Your task to perform on an android device: open device folders in google photos Image 0: 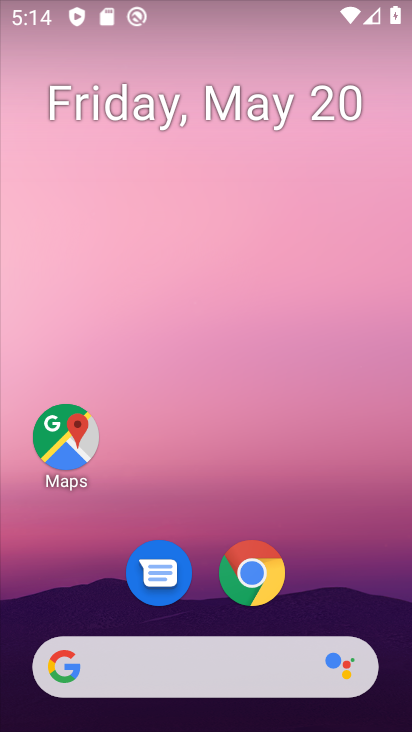
Step 0: drag from (341, 532) to (209, 27)
Your task to perform on an android device: open device folders in google photos Image 1: 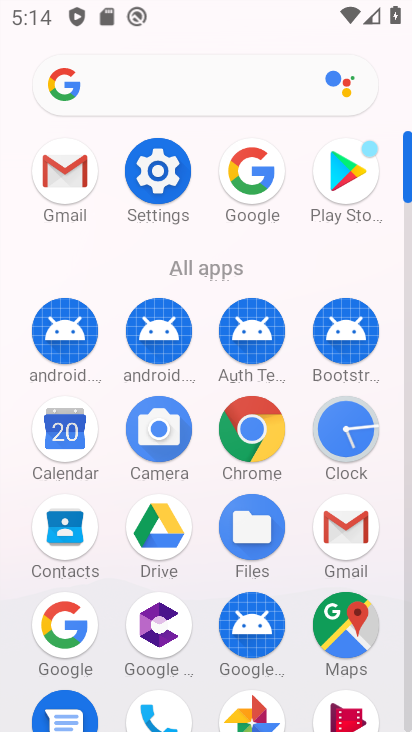
Step 1: drag from (294, 549) to (222, 101)
Your task to perform on an android device: open device folders in google photos Image 2: 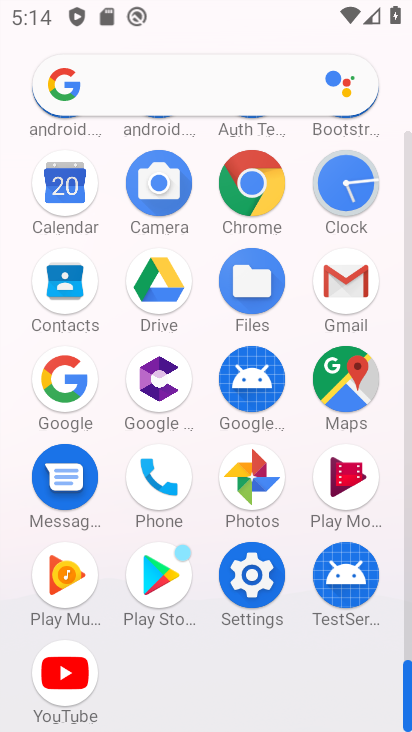
Step 2: click (256, 488)
Your task to perform on an android device: open device folders in google photos Image 3: 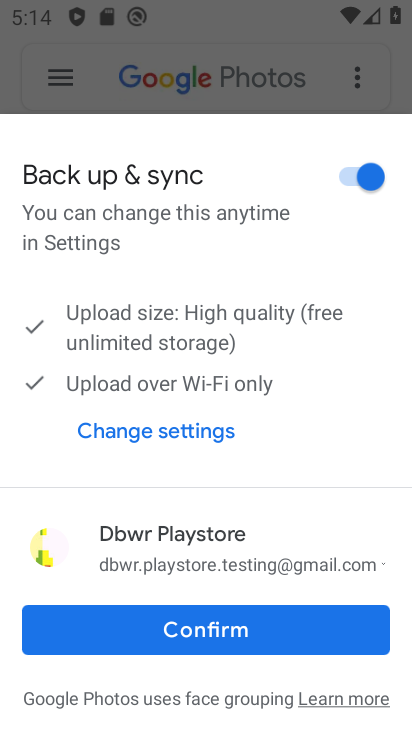
Step 3: click (55, 72)
Your task to perform on an android device: open device folders in google photos Image 4: 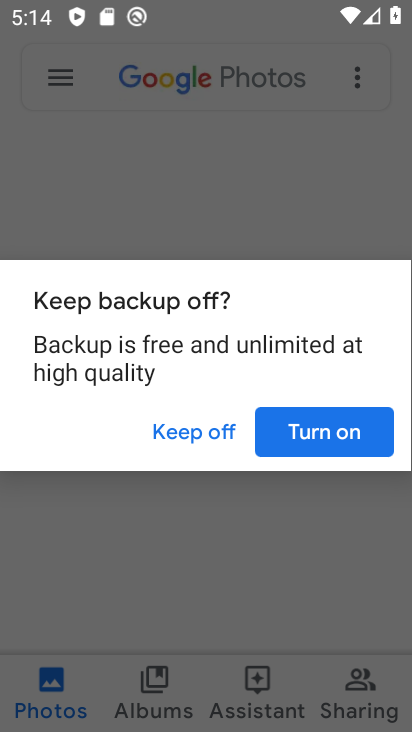
Step 4: click (55, 79)
Your task to perform on an android device: open device folders in google photos Image 5: 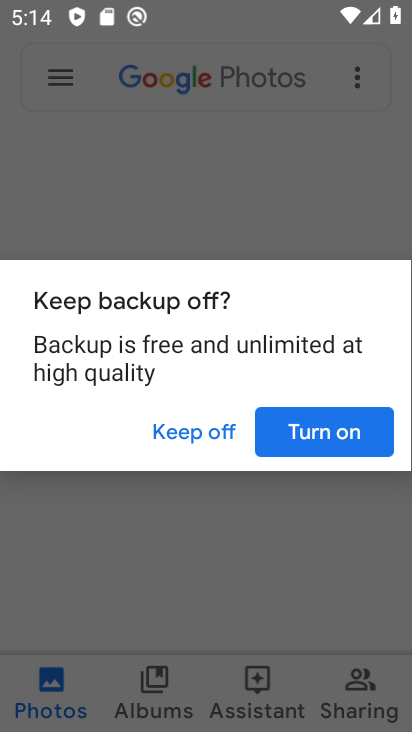
Step 5: click (198, 428)
Your task to perform on an android device: open device folders in google photos Image 6: 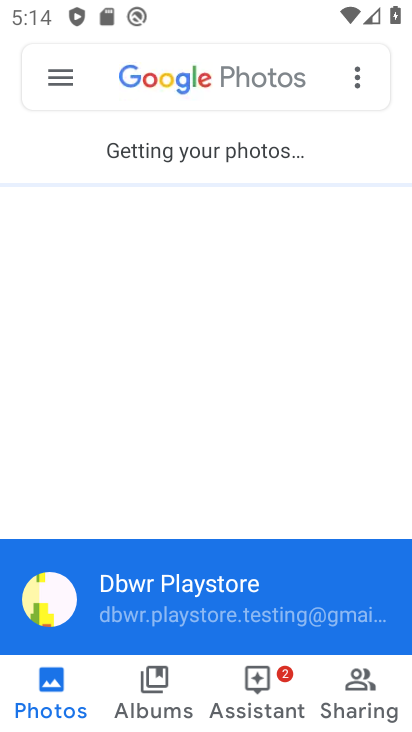
Step 6: click (67, 79)
Your task to perform on an android device: open device folders in google photos Image 7: 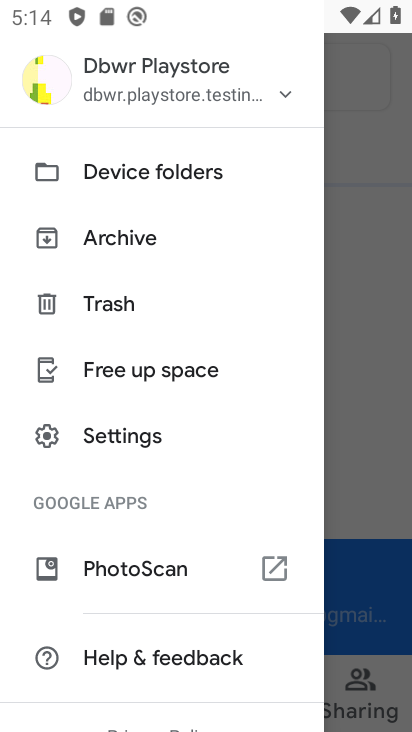
Step 7: click (117, 162)
Your task to perform on an android device: open device folders in google photos Image 8: 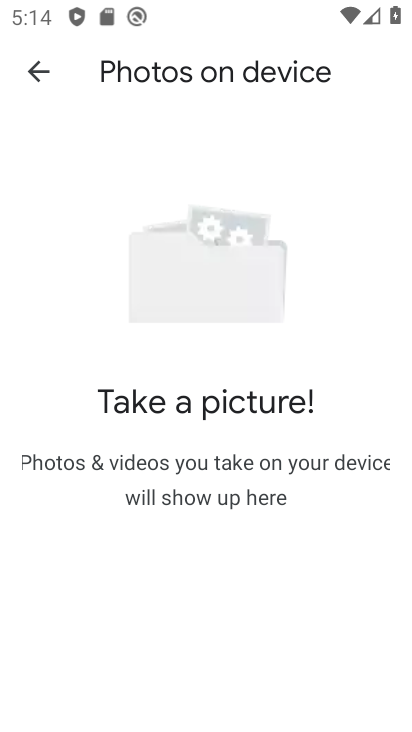
Step 8: task complete